Your task to perform on an android device: Search for vegetarian restaurants on Maps Image 0: 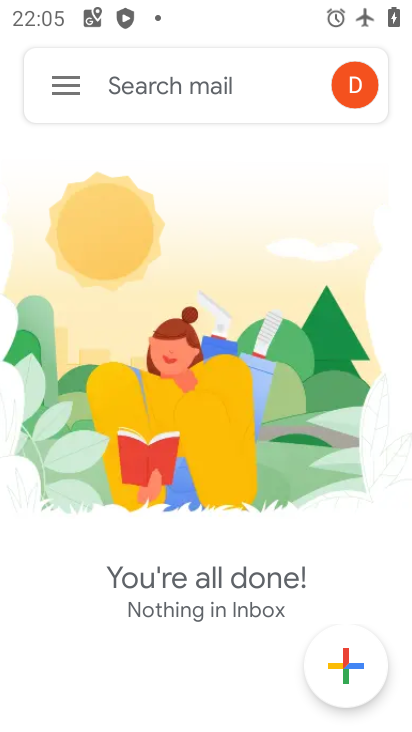
Step 0: press home button
Your task to perform on an android device: Search for vegetarian restaurants on Maps Image 1: 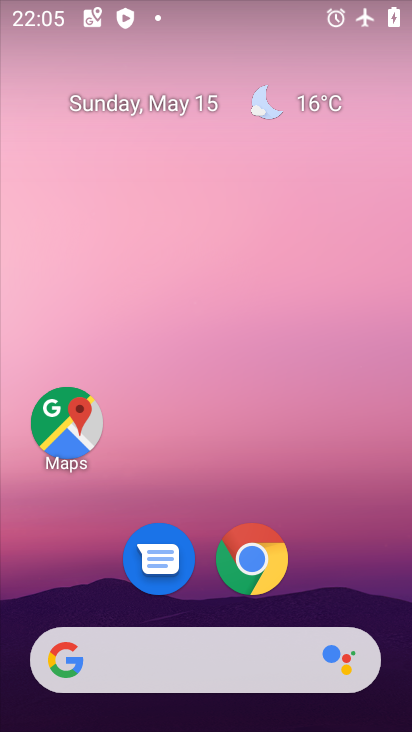
Step 1: click (61, 433)
Your task to perform on an android device: Search for vegetarian restaurants on Maps Image 2: 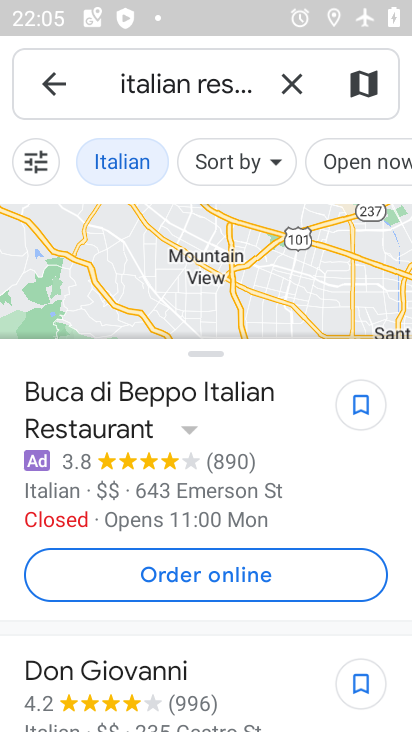
Step 2: click (281, 82)
Your task to perform on an android device: Search for vegetarian restaurants on Maps Image 3: 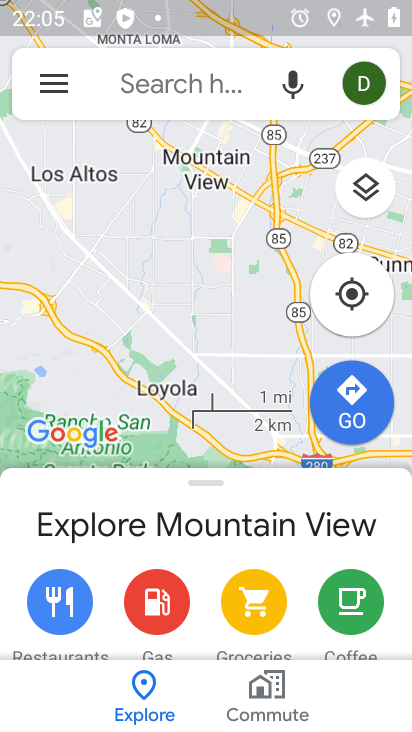
Step 3: click (164, 79)
Your task to perform on an android device: Search for vegetarian restaurants on Maps Image 4: 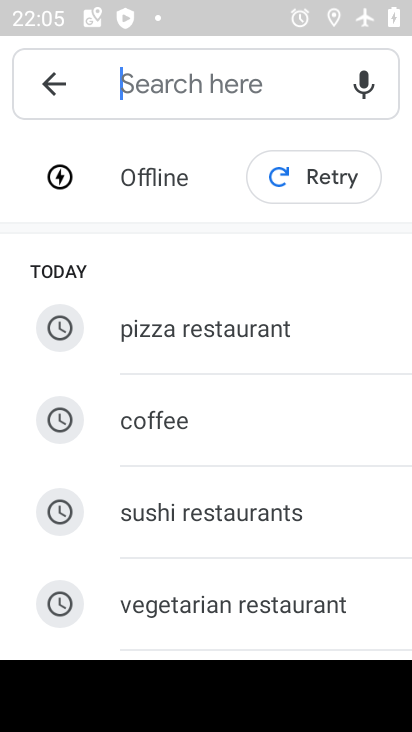
Step 4: click (241, 603)
Your task to perform on an android device: Search for vegetarian restaurants on Maps Image 5: 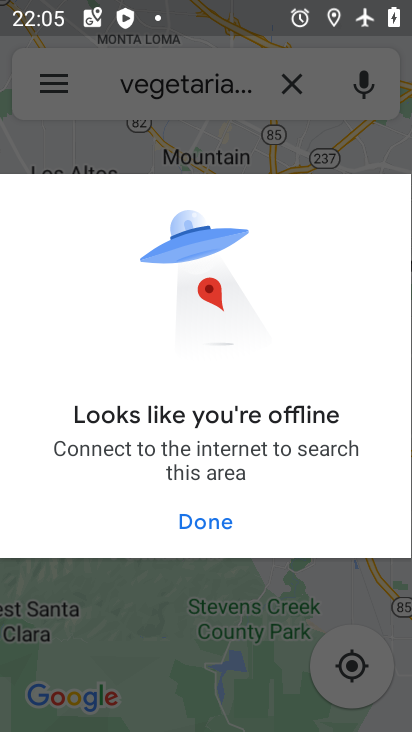
Step 5: click (191, 505)
Your task to perform on an android device: Search for vegetarian restaurants on Maps Image 6: 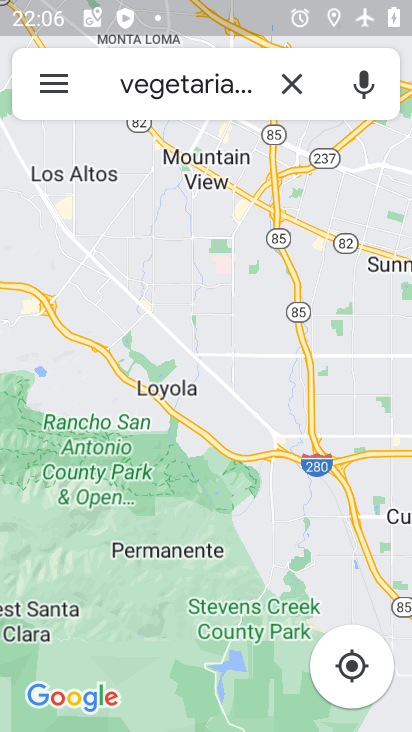
Step 6: task complete